Your task to perform on an android device: move a message to another label in the gmail app Image 0: 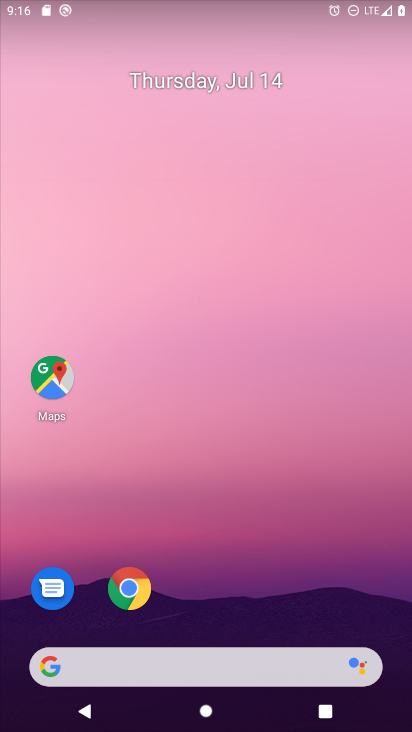
Step 0: drag from (345, 457) to (273, 303)
Your task to perform on an android device: move a message to another label in the gmail app Image 1: 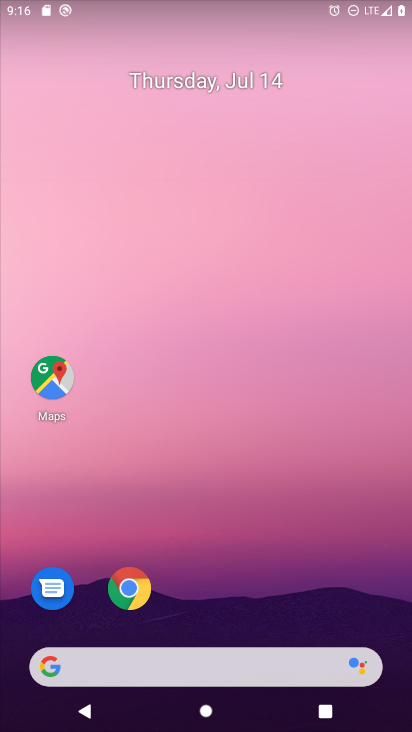
Step 1: drag from (372, 418) to (409, 48)
Your task to perform on an android device: move a message to another label in the gmail app Image 2: 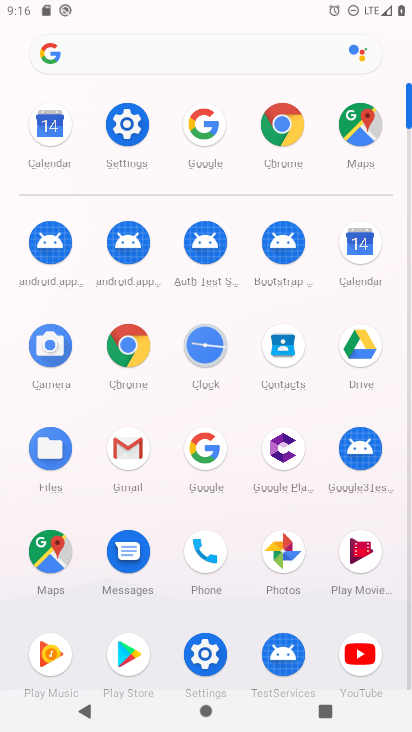
Step 2: click (132, 462)
Your task to perform on an android device: move a message to another label in the gmail app Image 3: 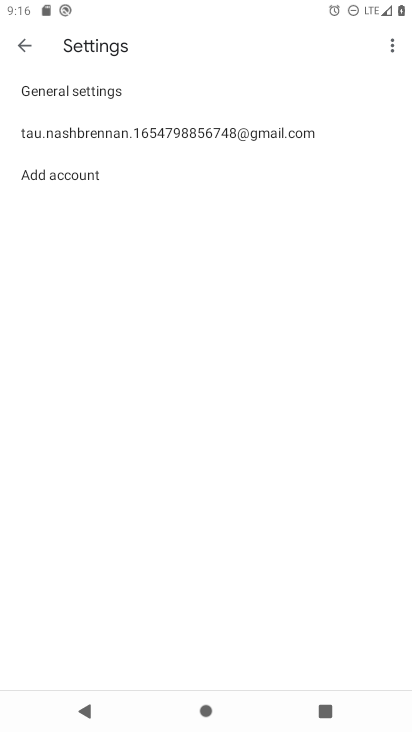
Step 3: click (16, 46)
Your task to perform on an android device: move a message to another label in the gmail app Image 4: 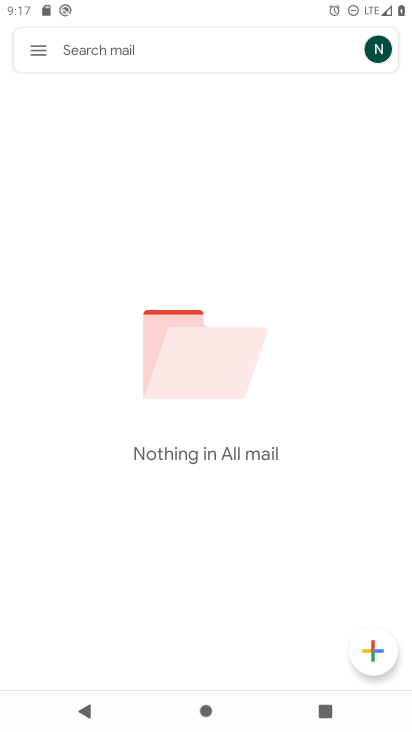
Step 4: task complete